Your task to perform on an android device: Turn on the flashlight Image 0: 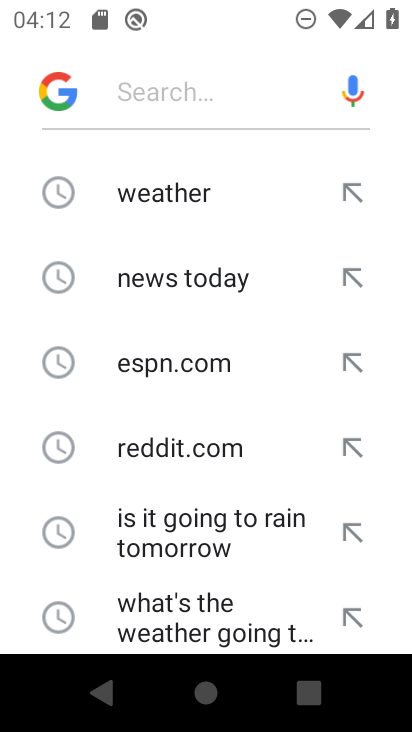
Step 0: press home button
Your task to perform on an android device: Turn on the flashlight Image 1: 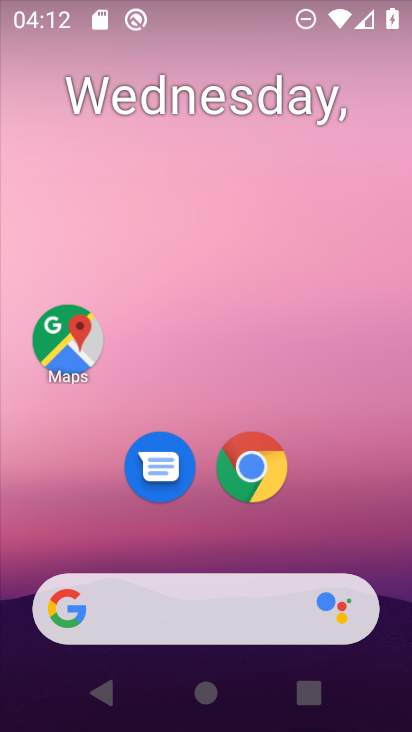
Step 1: drag from (218, 14) to (264, 506)
Your task to perform on an android device: Turn on the flashlight Image 2: 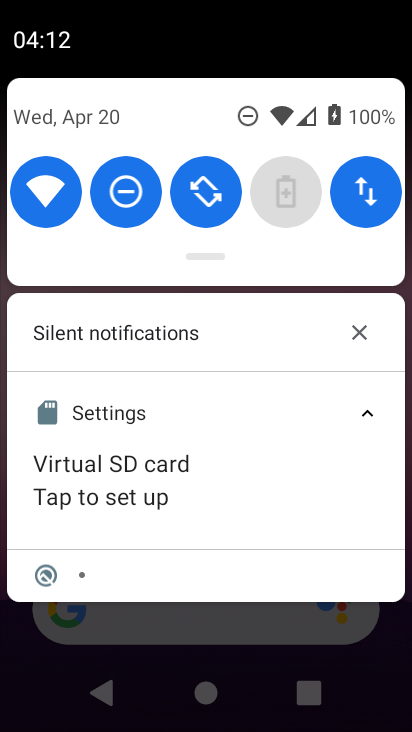
Step 2: drag from (201, 252) to (179, 529)
Your task to perform on an android device: Turn on the flashlight Image 3: 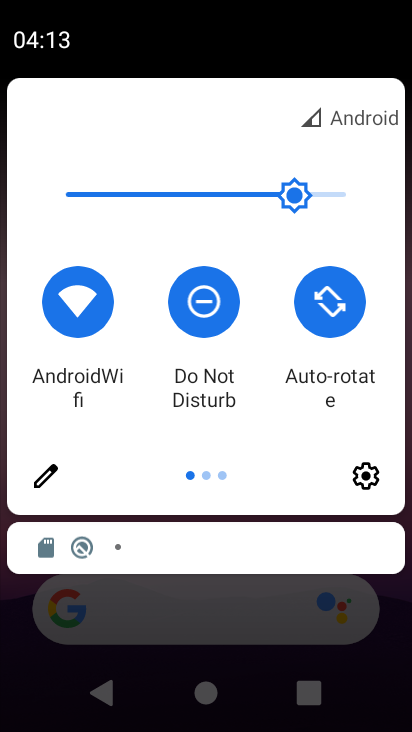
Step 3: click (42, 478)
Your task to perform on an android device: Turn on the flashlight Image 4: 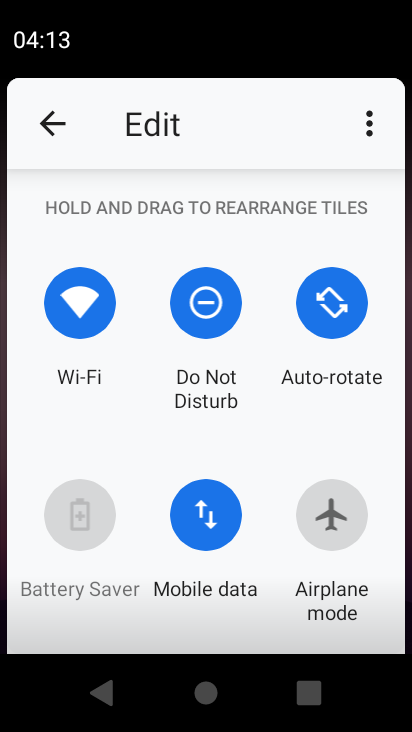
Step 4: task complete